Your task to perform on an android device: manage bookmarks in the chrome app Image 0: 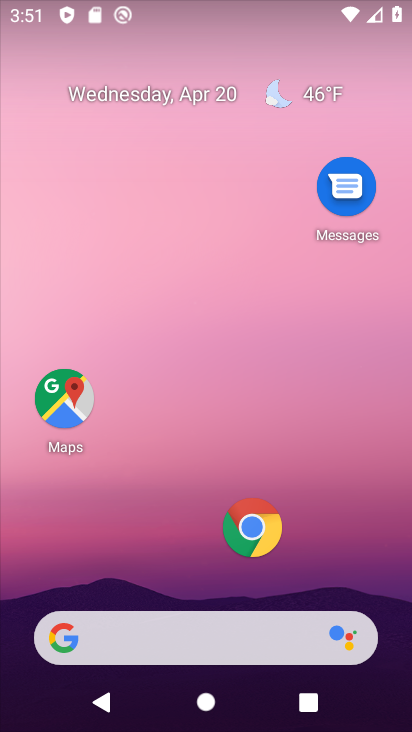
Step 0: drag from (156, 635) to (252, 100)
Your task to perform on an android device: manage bookmarks in the chrome app Image 1: 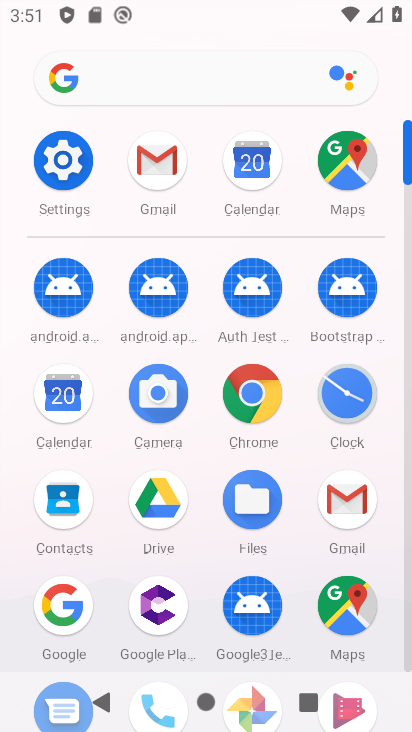
Step 1: click (252, 393)
Your task to perform on an android device: manage bookmarks in the chrome app Image 2: 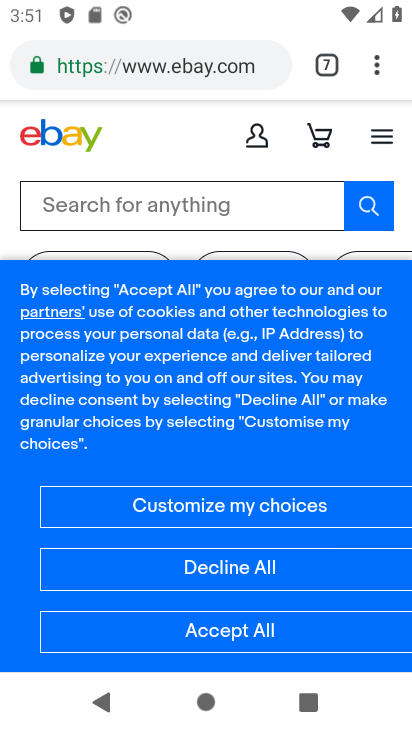
Step 2: click (363, 73)
Your task to perform on an android device: manage bookmarks in the chrome app Image 3: 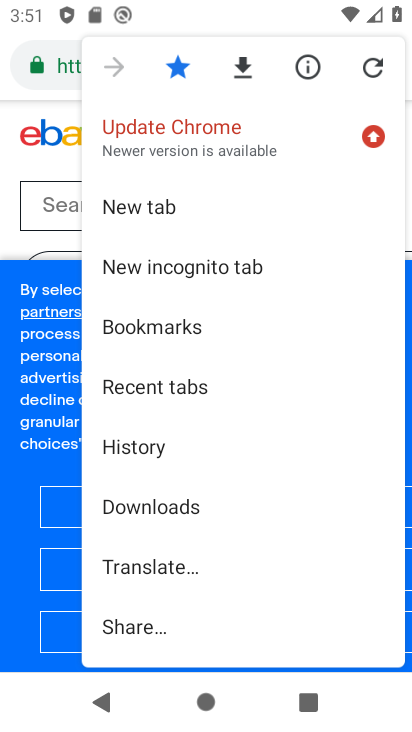
Step 3: click (171, 322)
Your task to perform on an android device: manage bookmarks in the chrome app Image 4: 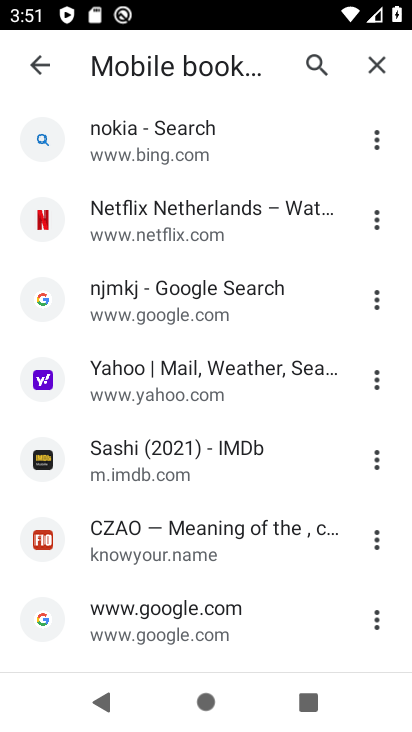
Step 4: click (374, 135)
Your task to perform on an android device: manage bookmarks in the chrome app Image 5: 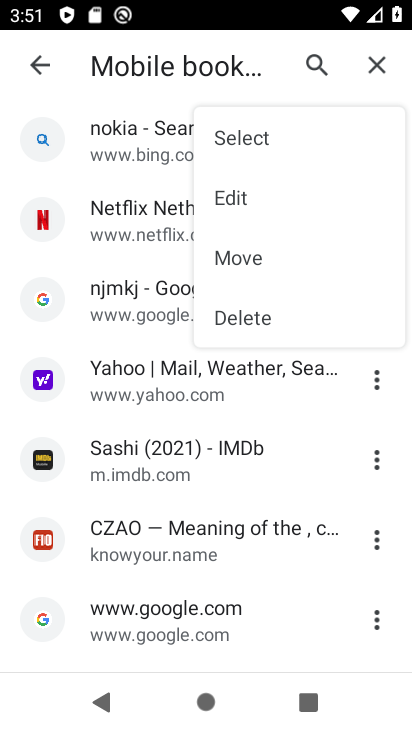
Step 5: click (262, 320)
Your task to perform on an android device: manage bookmarks in the chrome app Image 6: 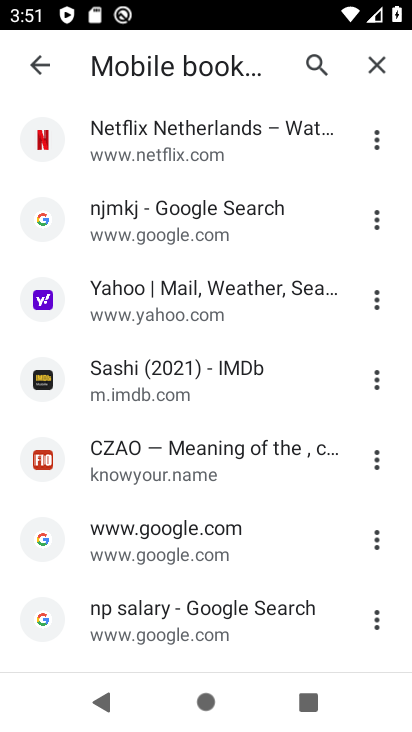
Step 6: task complete